Your task to perform on an android device: Open the stopwatch Image 0: 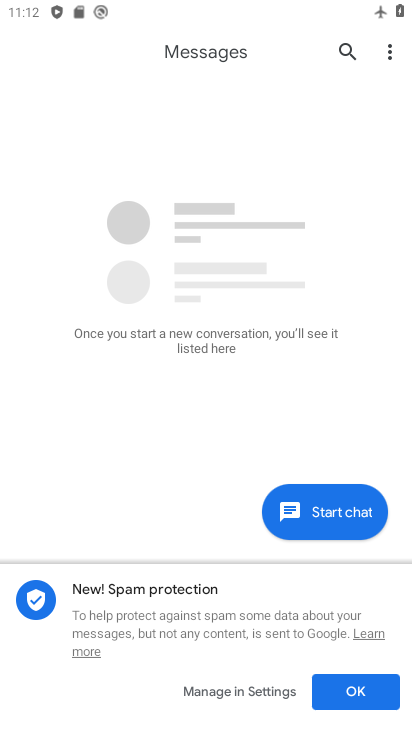
Step 0: press home button
Your task to perform on an android device: Open the stopwatch Image 1: 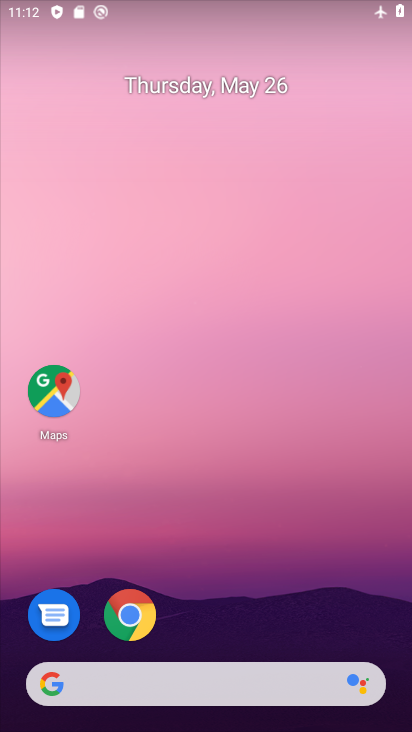
Step 1: drag from (308, 602) to (329, 154)
Your task to perform on an android device: Open the stopwatch Image 2: 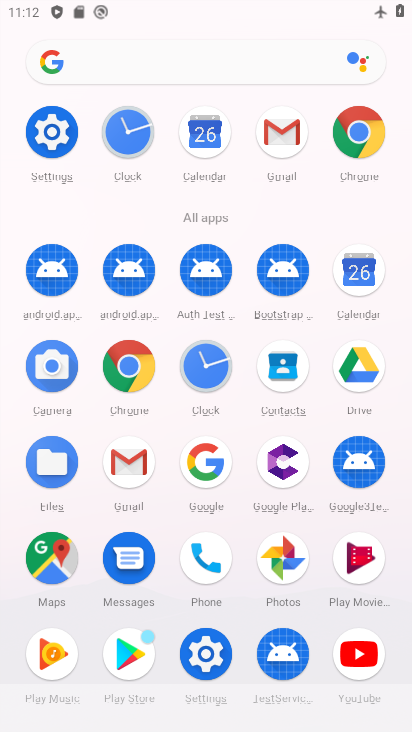
Step 2: click (222, 375)
Your task to perform on an android device: Open the stopwatch Image 3: 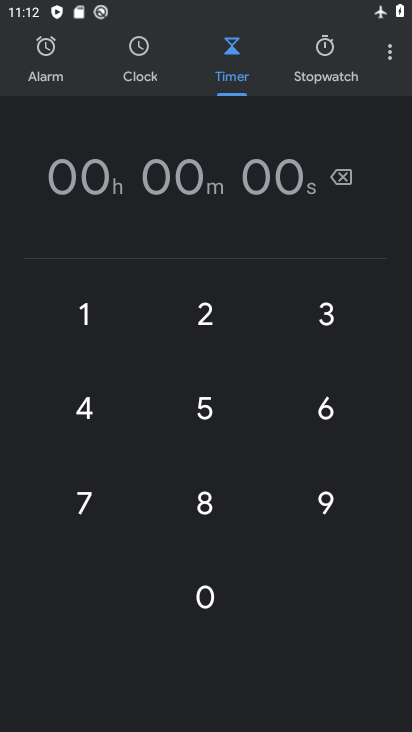
Step 3: click (336, 57)
Your task to perform on an android device: Open the stopwatch Image 4: 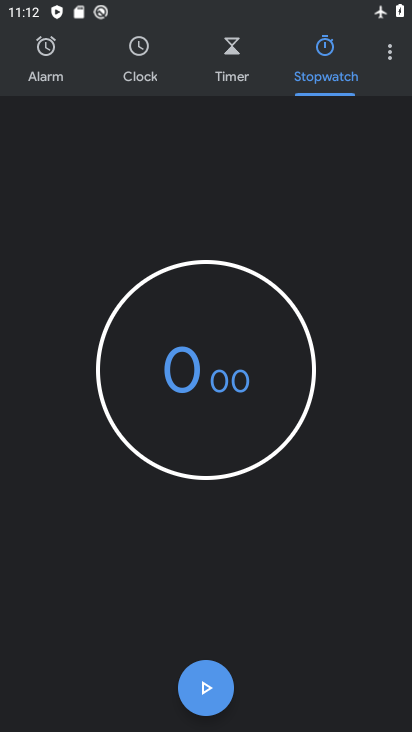
Step 4: task complete